Your task to perform on an android device: search for starred emails in the gmail app Image 0: 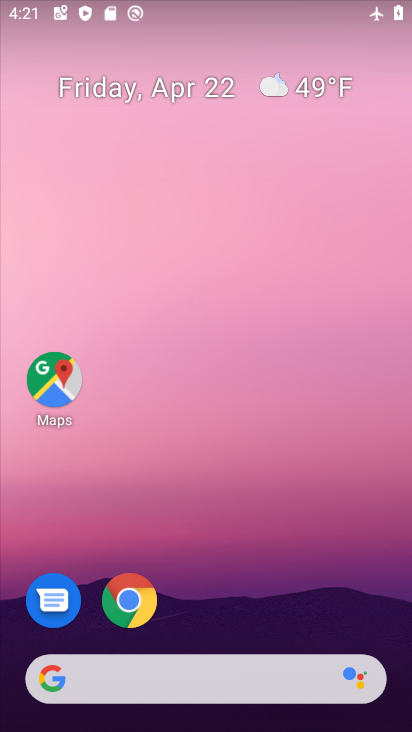
Step 0: click (55, 382)
Your task to perform on an android device: search for starred emails in the gmail app Image 1: 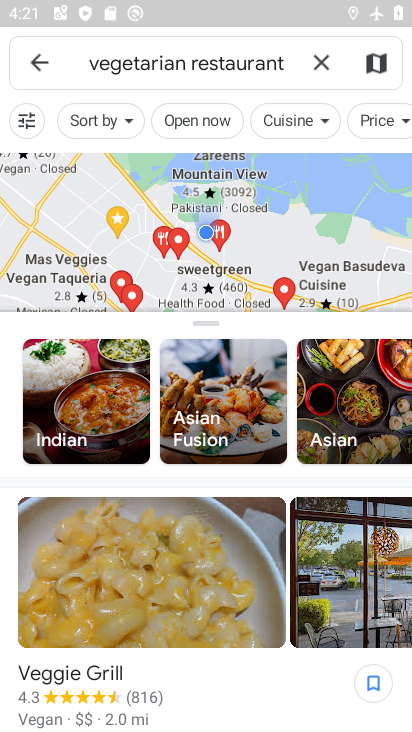
Step 1: press back button
Your task to perform on an android device: search for starred emails in the gmail app Image 2: 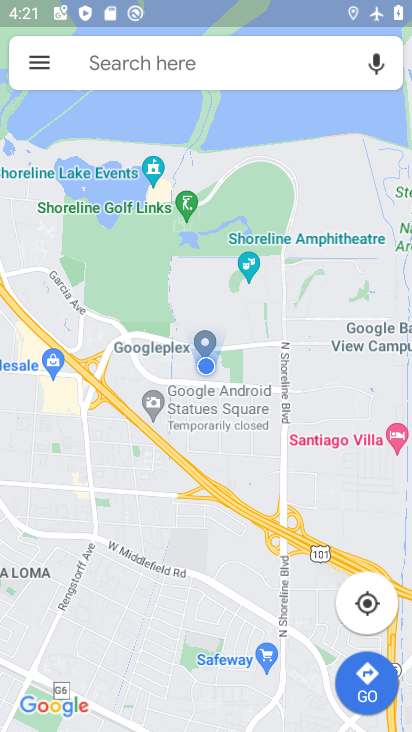
Step 2: press back button
Your task to perform on an android device: search for starred emails in the gmail app Image 3: 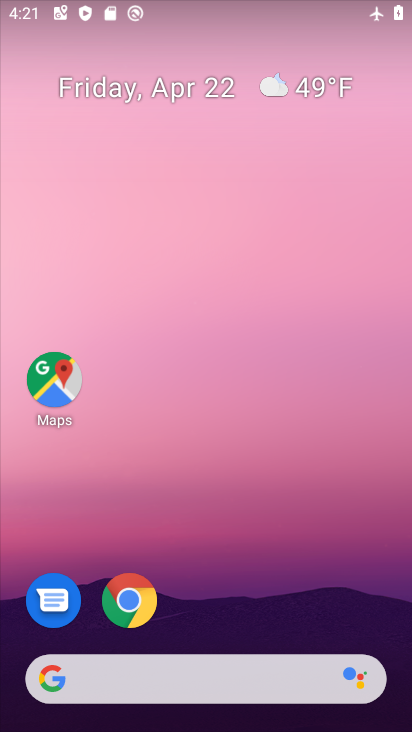
Step 3: drag from (246, 566) to (169, 25)
Your task to perform on an android device: search for starred emails in the gmail app Image 4: 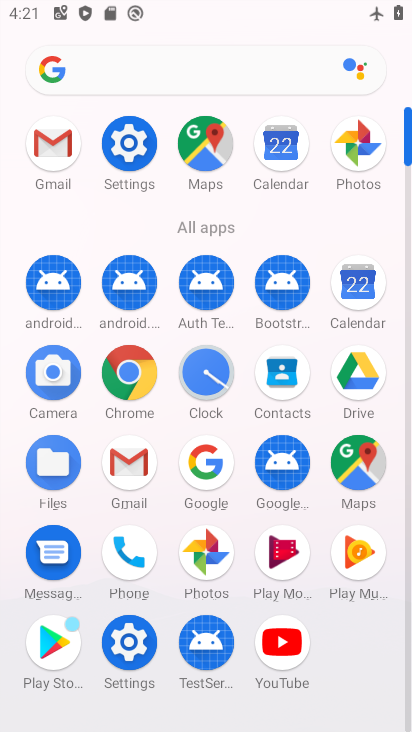
Step 4: click (56, 147)
Your task to perform on an android device: search for starred emails in the gmail app Image 5: 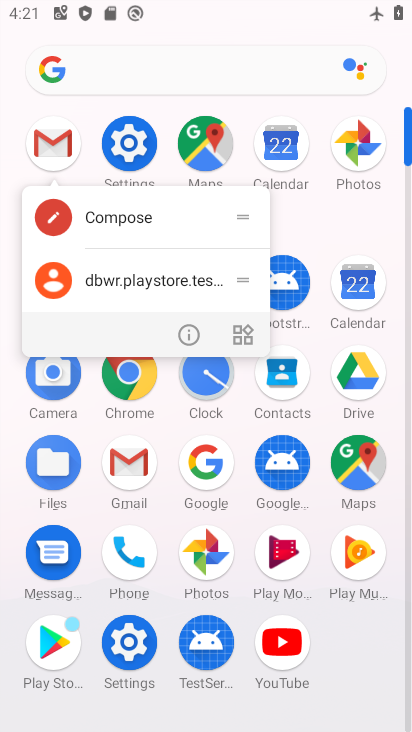
Step 5: click (56, 147)
Your task to perform on an android device: search for starred emails in the gmail app Image 6: 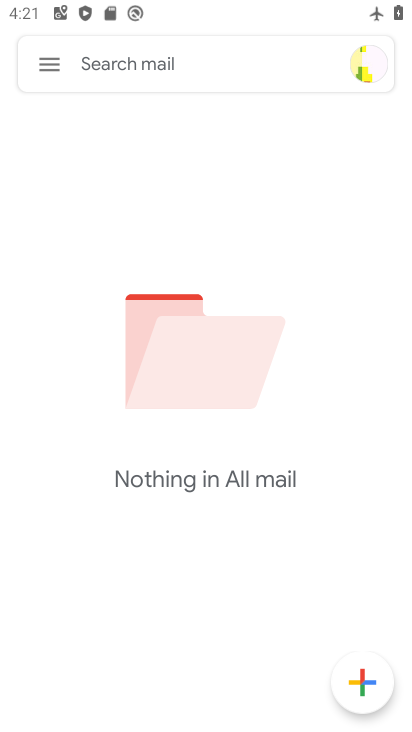
Step 6: click (173, 74)
Your task to perform on an android device: search for starred emails in the gmail app Image 7: 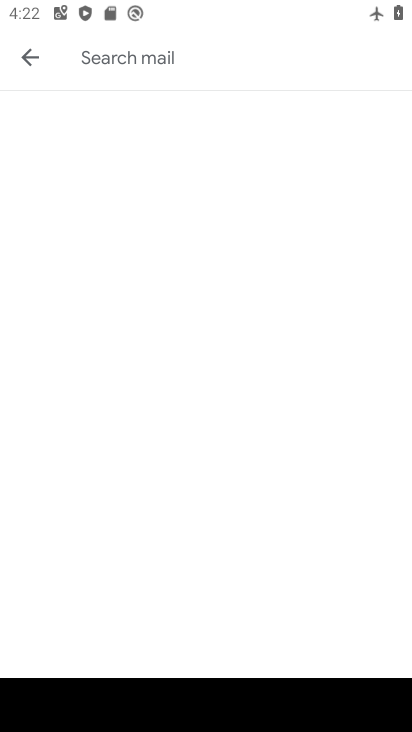
Step 7: type "starred"
Your task to perform on an android device: search for starred emails in the gmail app Image 8: 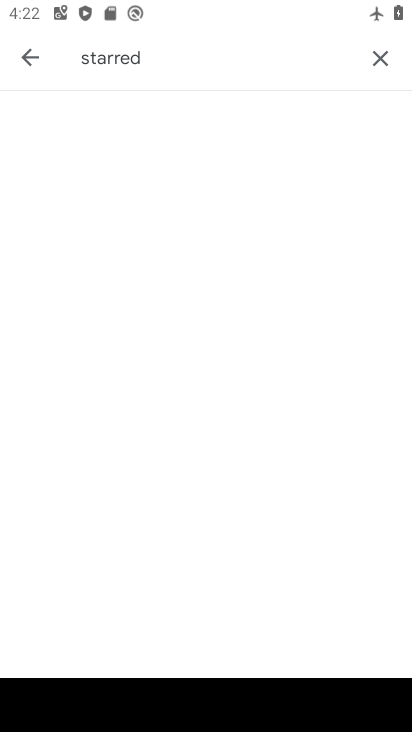
Step 8: task complete